Your task to perform on an android device: check android version Image 0: 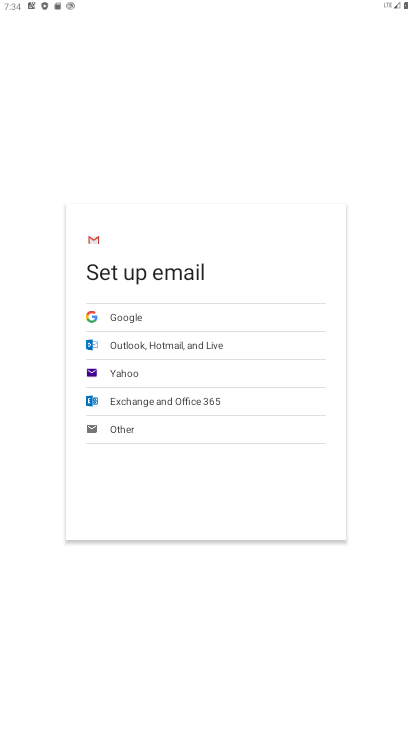
Step 0: press home button
Your task to perform on an android device: check android version Image 1: 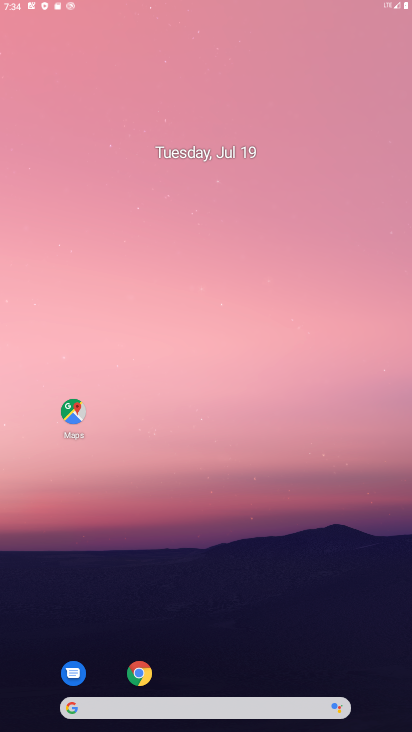
Step 1: drag from (382, 719) to (265, 29)
Your task to perform on an android device: check android version Image 2: 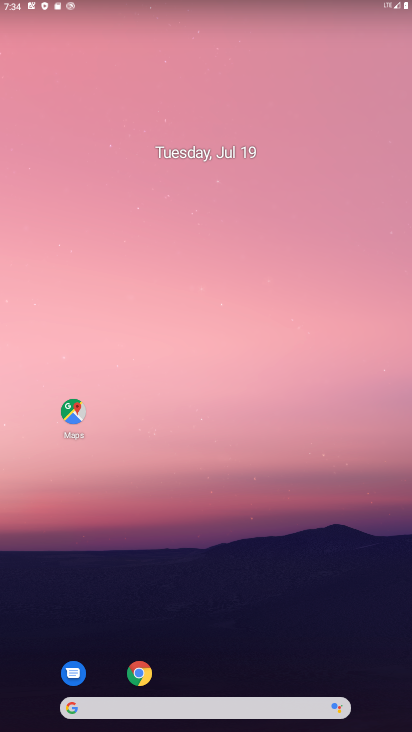
Step 2: drag from (366, 689) to (237, 68)
Your task to perform on an android device: check android version Image 3: 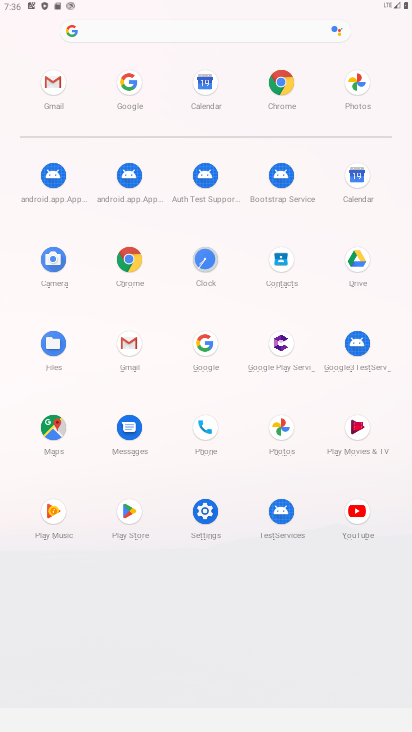
Step 3: click (201, 532)
Your task to perform on an android device: check android version Image 4: 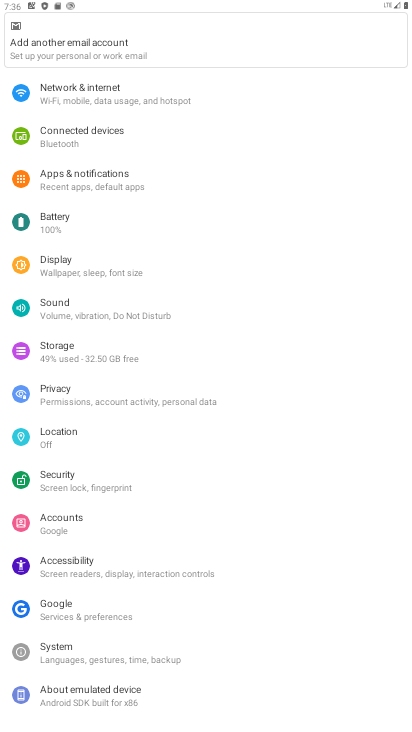
Step 4: drag from (171, 641) to (207, 7)
Your task to perform on an android device: check android version Image 5: 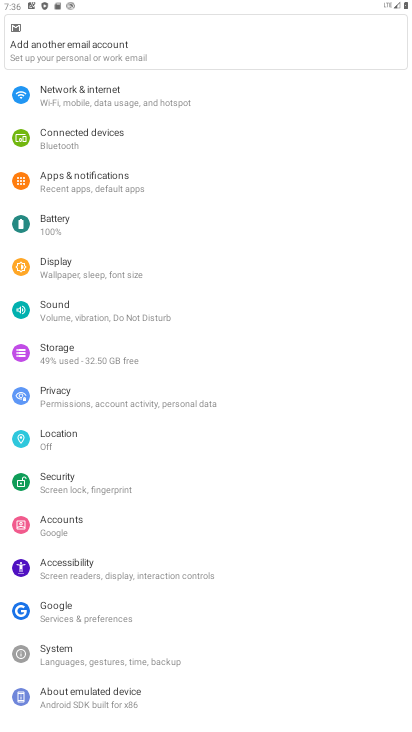
Step 5: click (87, 691)
Your task to perform on an android device: check android version Image 6: 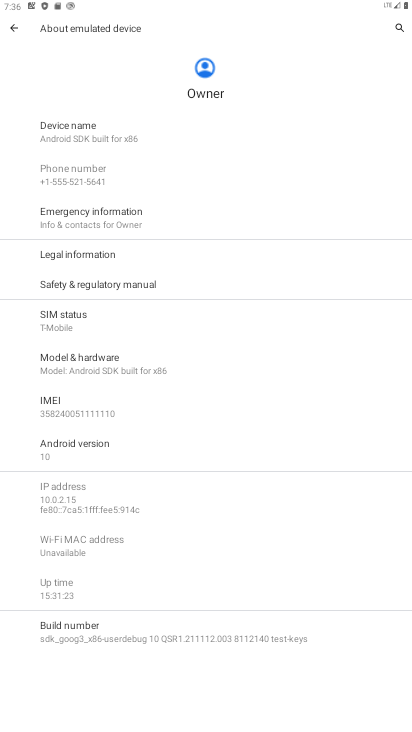
Step 6: click (97, 456)
Your task to perform on an android device: check android version Image 7: 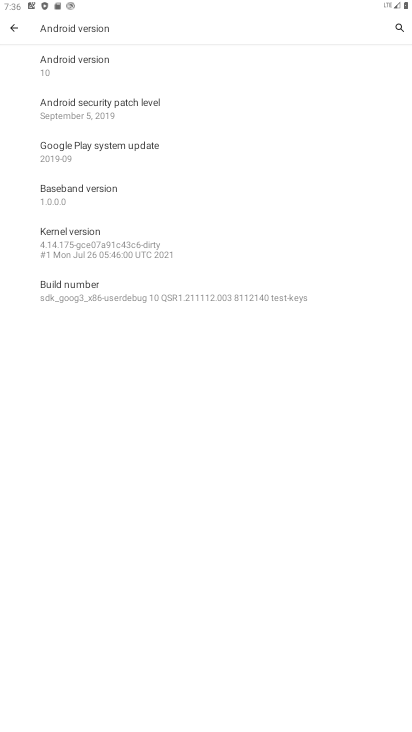
Step 7: click (109, 62)
Your task to perform on an android device: check android version Image 8: 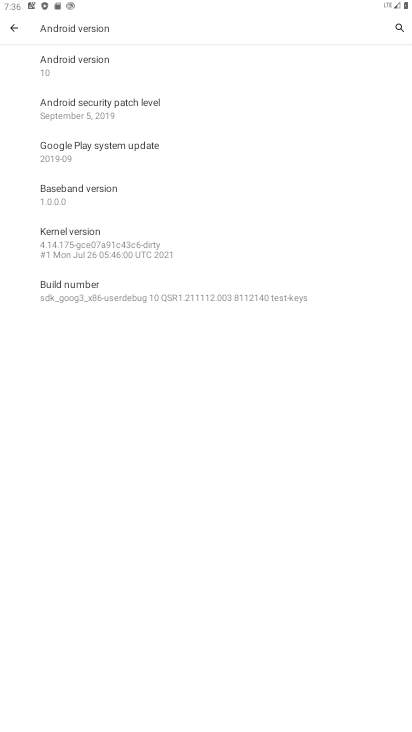
Step 8: task complete